Your task to perform on an android device: open app "Gmail" Image 0: 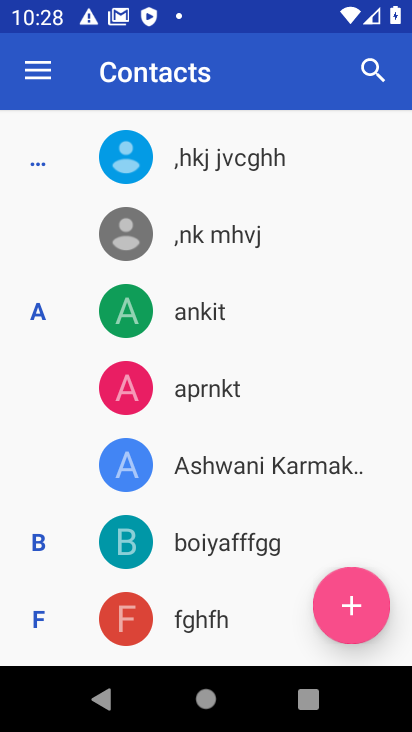
Step 0: press home button
Your task to perform on an android device: open app "Gmail" Image 1: 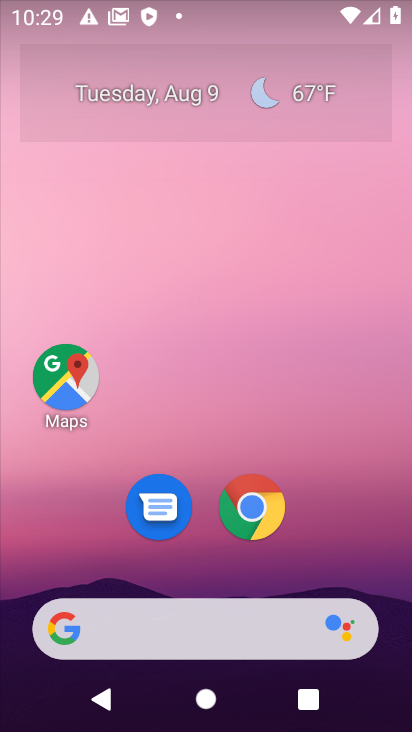
Step 1: drag from (254, 560) to (260, 6)
Your task to perform on an android device: open app "Gmail" Image 2: 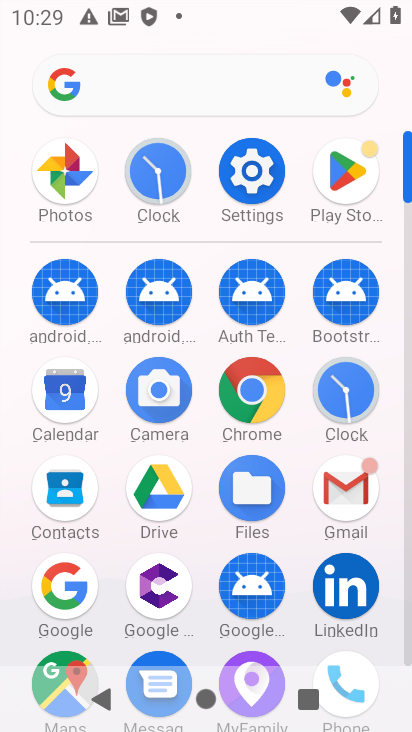
Step 2: click (337, 192)
Your task to perform on an android device: open app "Gmail" Image 3: 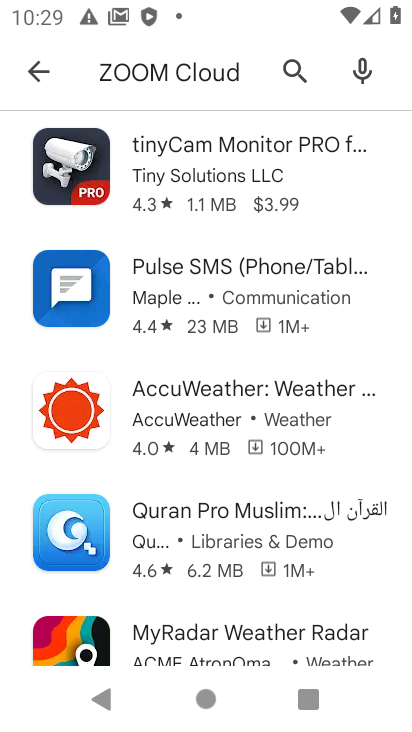
Step 3: click (295, 68)
Your task to perform on an android device: open app "Gmail" Image 4: 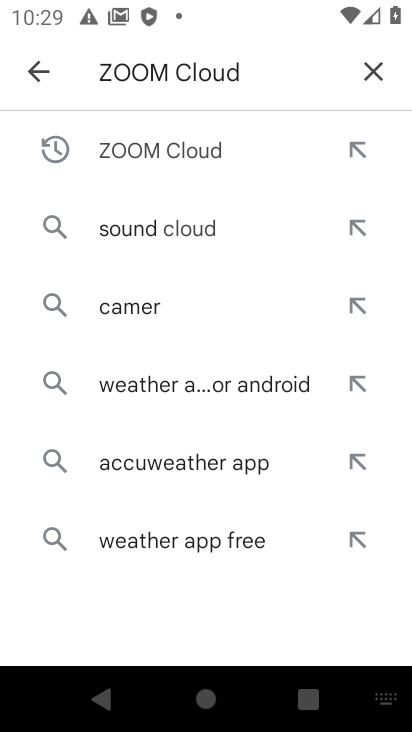
Step 4: click (374, 80)
Your task to perform on an android device: open app "Gmail" Image 5: 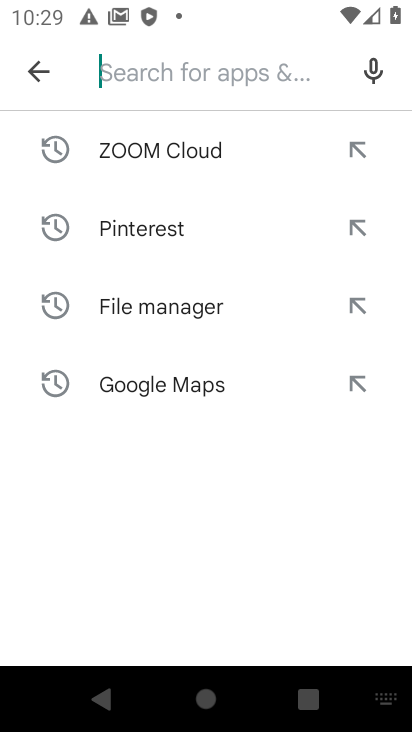
Step 5: type "Gmail"
Your task to perform on an android device: open app "Gmail" Image 6: 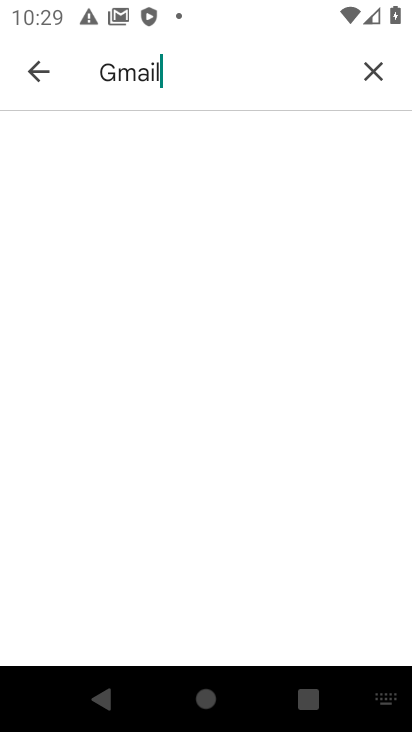
Step 6: press enter
Your task to perform on an android device: open app "Gmail" Image 7: 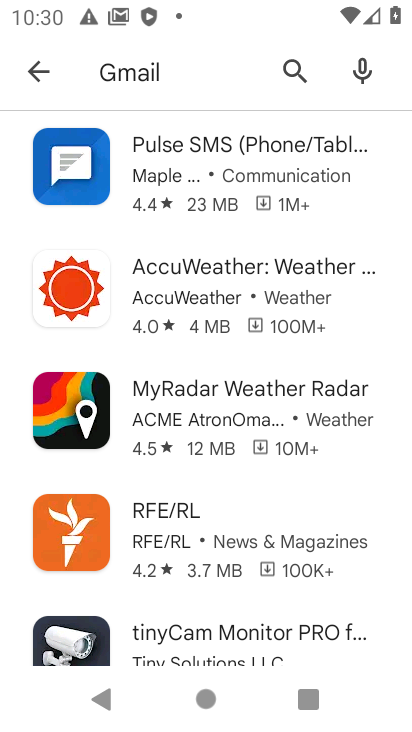
Step 7: task complete